Your task to perform on an android device: clear history in the chrome app Image 0: 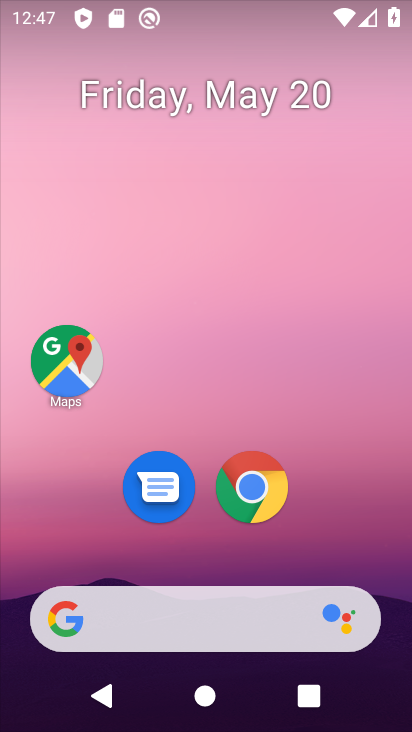
Step 0: click (258, 489)
Your task to perform on an android device: clear history in the chrome app Image 1: 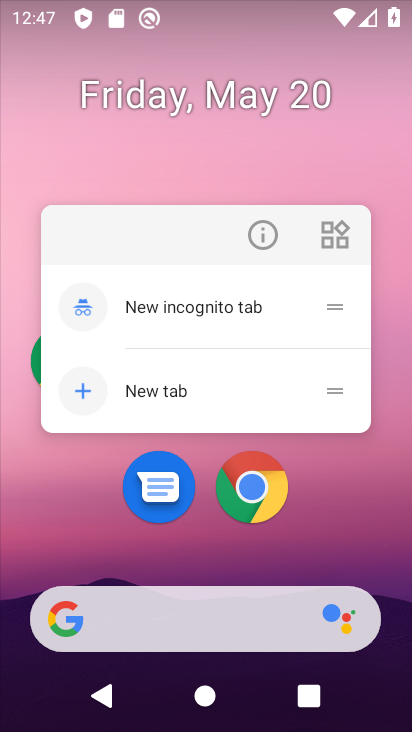
Step 1: click (251, 490)
Your task to perform on an android device: clear history in the chrome app Image 2: 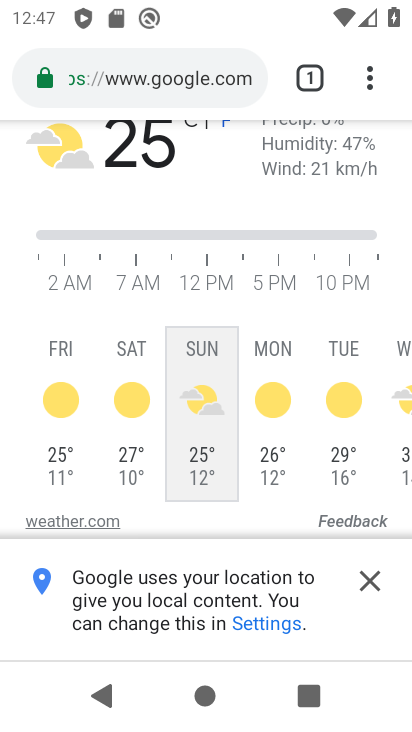
Step 2: drag from (376, 76) to (117, 436)
Your task to perform on an android device: clear history in the chrome app Image 3: 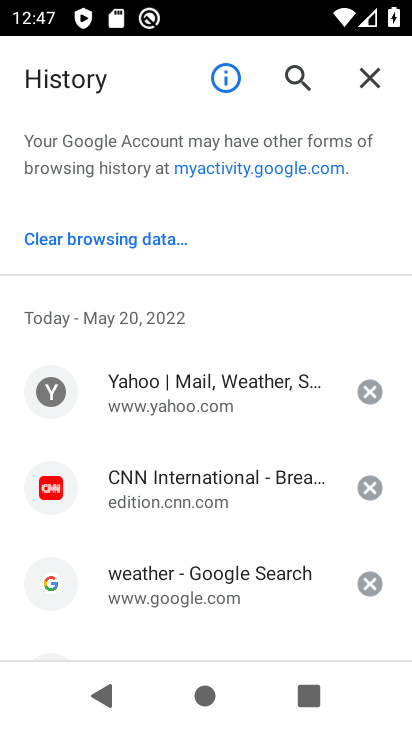
Step 3: click (153, 238)
Your task to perform on an android device: clear history in the chrome app Image 4: 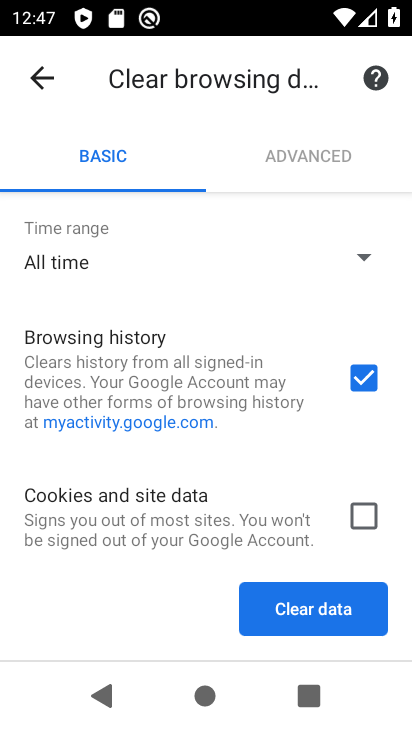
Step 4: click (370, 511)
Your task to perform on an android device: clear history in the chrome app Image 5: 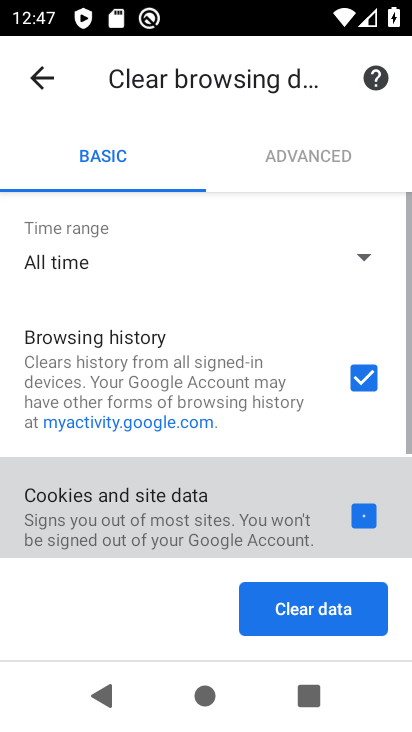
Step 5: drag from (219, 497) to (254, 188)
Your task to perform on an android device: clear history in the chrome app Image 6: 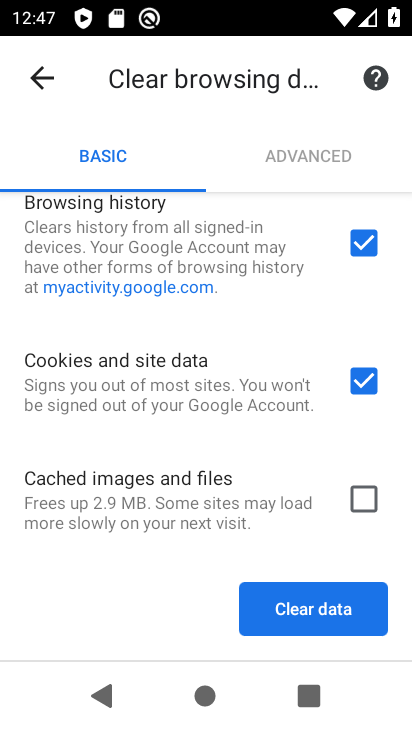
Step 6: click (357, 497)
Your task to perform on an android device: clear history in the chrome app Image 7: 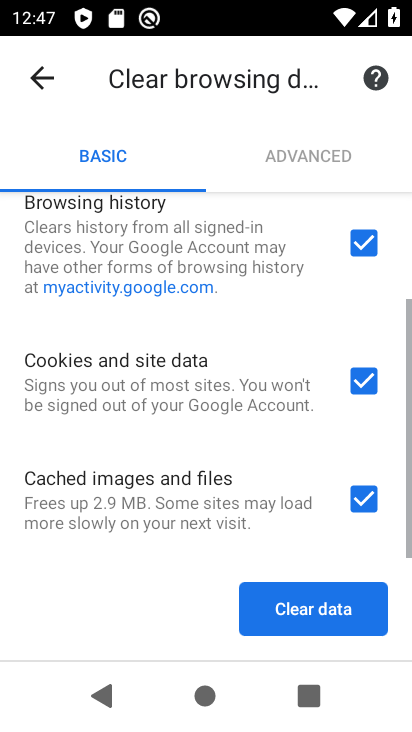
Step 7: click (350, 607)
Your task to perform on an android device: clear history in the chrome app Image 8: 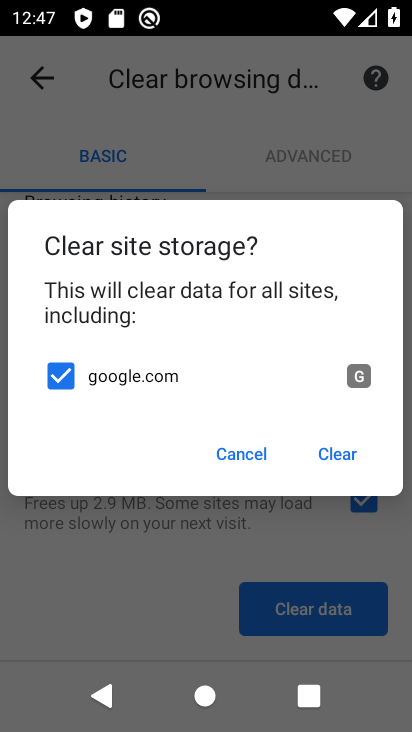
Step 8: click (354, 465)
Your task to perform on an android device: clear history in the chrome app Image 9: 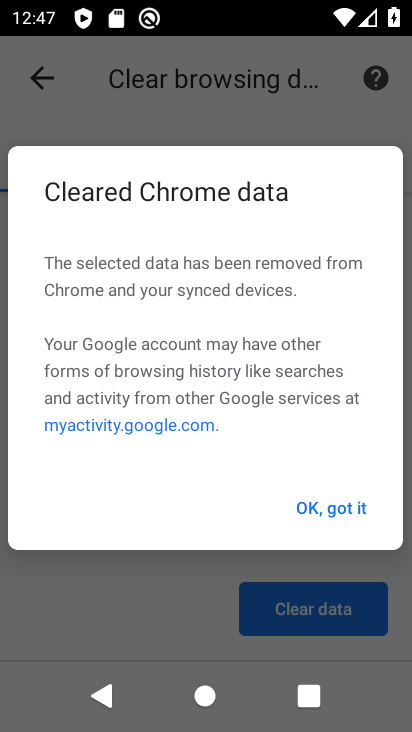
Step 9: task complete